Your task to perform on an android device: When is my next meeting? Image 0: 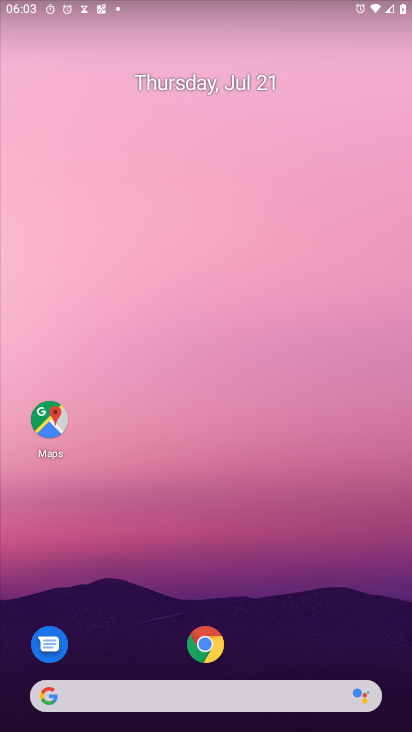
Step 0: drag from (323, 600) to (342, 197)
Your task to perform on an android device: When is my next meeting? Image 1: 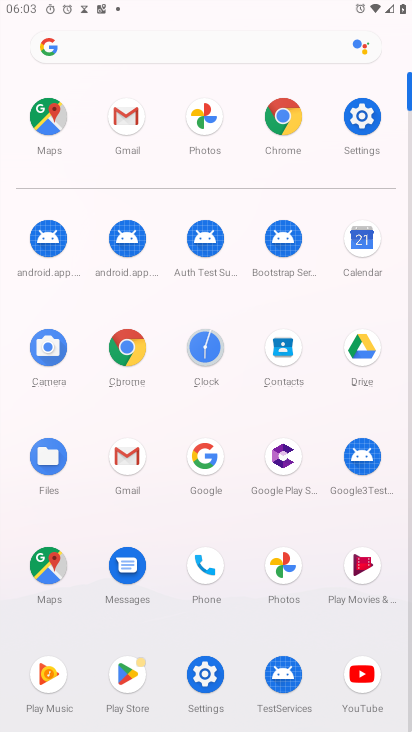
Step 1: click (362, 238)
Your task to perform on an android device: When is my next meeting? Image 2: 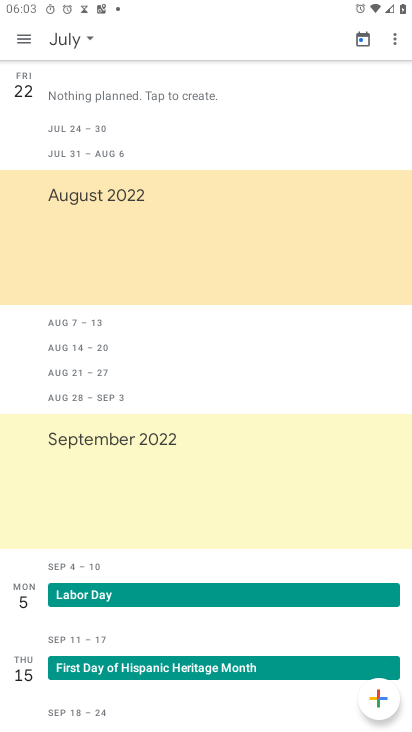
Step 2: click (19, 37)
Your task to perform on an android device: When is my next meeting? Image 3: 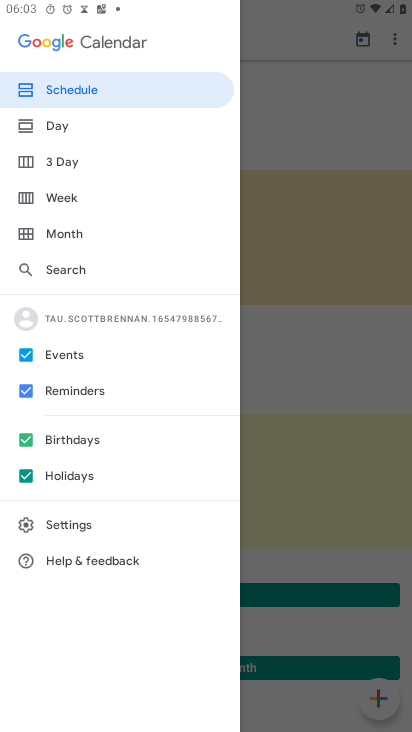
Step 3: click (66, 83)
Your task to perform on an android device: When is my next meeting? Image 4: 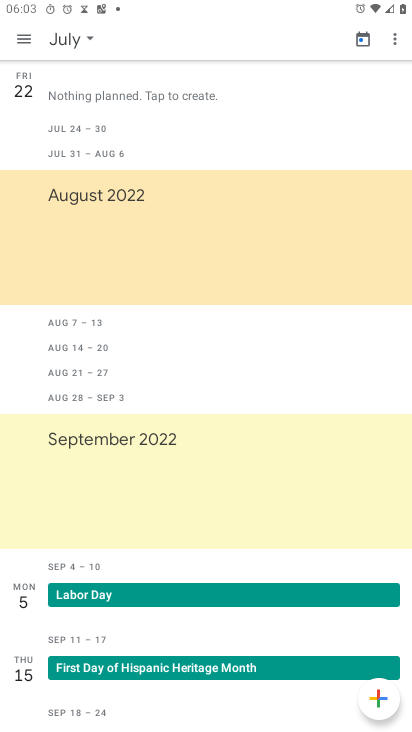
Step 4: task complete